Your task to perform on an android device: uninstall "VLC for Android" Image 0: 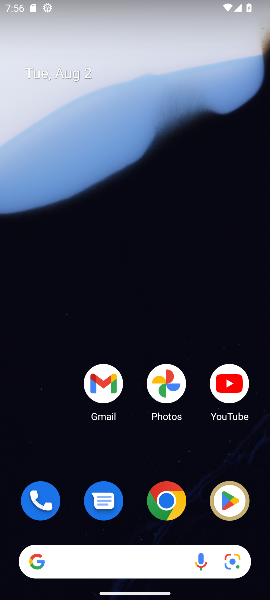
Step 0: click (238, 495)
Your task to perform on an android device: uninstall "VLC for Android" Image 1: 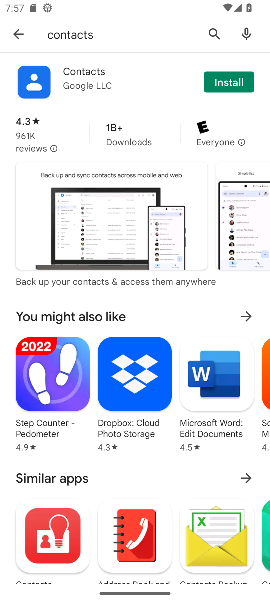
Step 1: click (215, 27)
Your task to perform on an android device: uninstall "VLC for Android" Image 2: 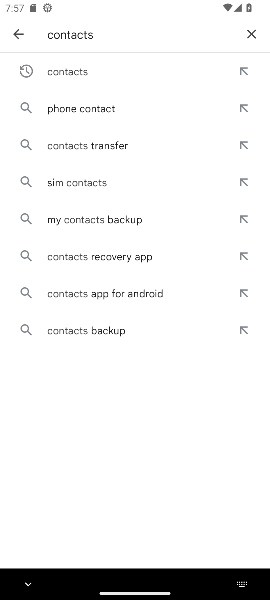
Step 2: type "VLC for Android"
Your task to perform on an android device: uninstall "VLC for Android" Image 3: 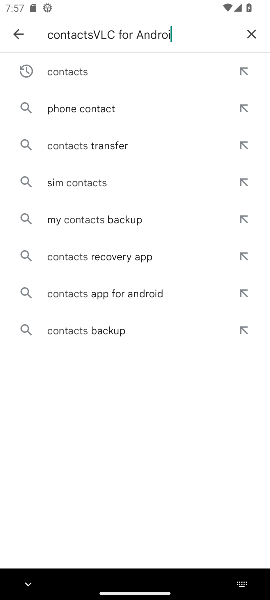
Step 3: type ""
Your task to perform on an android device: uninstall "VLC for Android" Image 4: 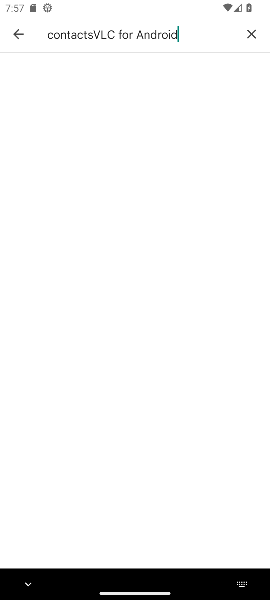
Step 4: click (97, 30)
Your task to perform on an android device: uninstall "VLC for Android" Image 5: 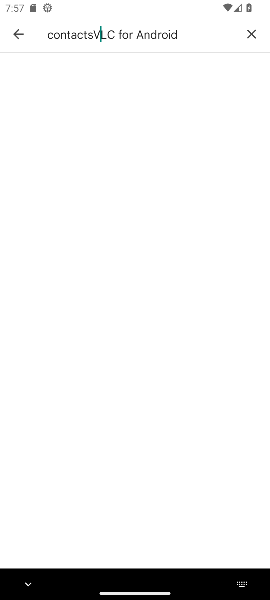
Step 5: type "VLC for Android"
Your task to perform on an android device: uninstall "VLC for Android" Image 6: 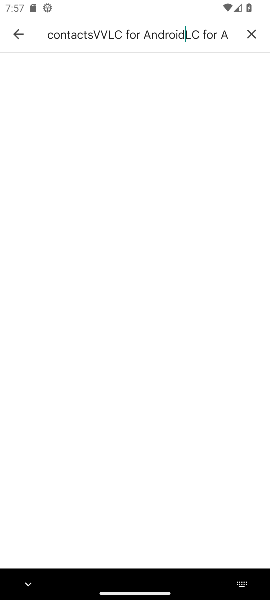
Step 6: type ""
Your task to perform on an android device: uninstall "VLC for Android" Image 7: 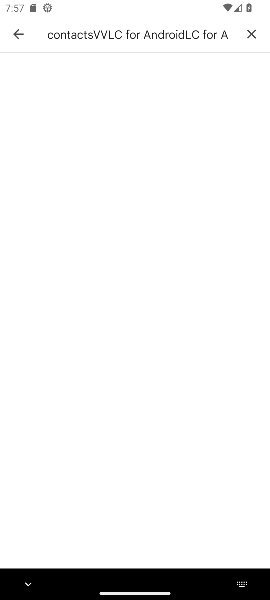
Step 7: click (252, 33)
Your task to perform on an android device: uninstall "VLC for Android" Image 8: 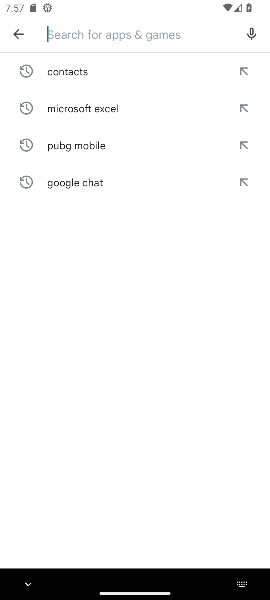
Step 8: type "VLC for Android"
Your task to perform on an android device: uninstall "VLC for Android" Image 9: 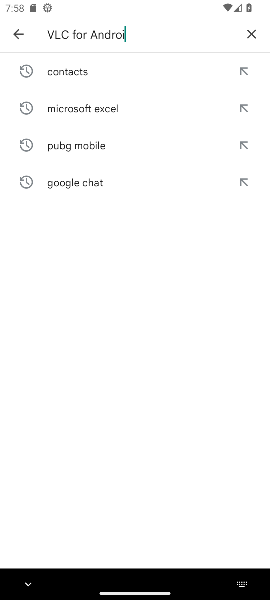
Step 9: type ""
Your task to perform on an android device: uninstall "VLC for Android" Image 10: 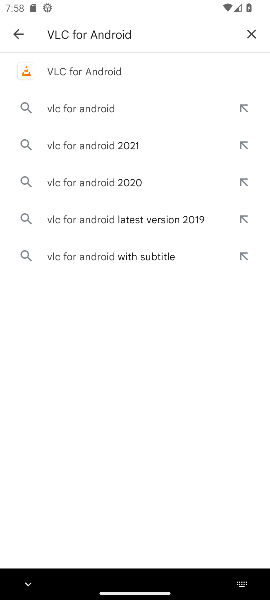
Step 10: click (132, 71)
Your task to perform on an android device: uninstall "VLC for Android" Image 11: 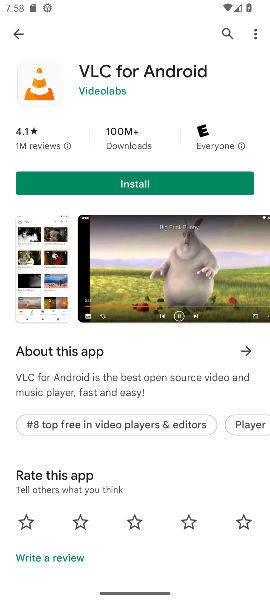
Step 11: task complete